Your task to perform on an android device: Go to location settings Image 0: 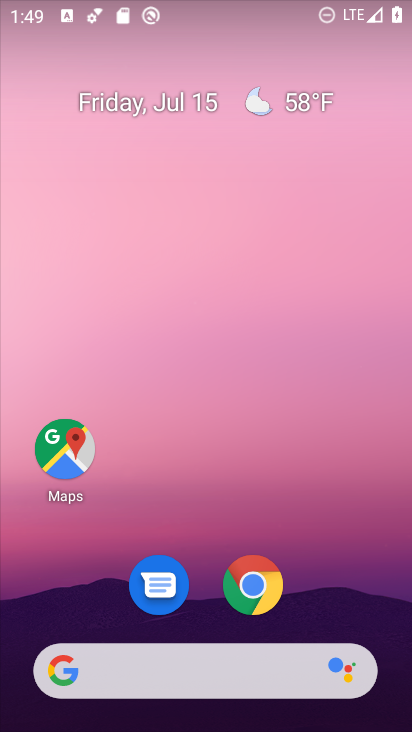
Step 0: drag from (237, 491) to (325, 26)
Your task to perform on an android device: Go to location settings Image 1: 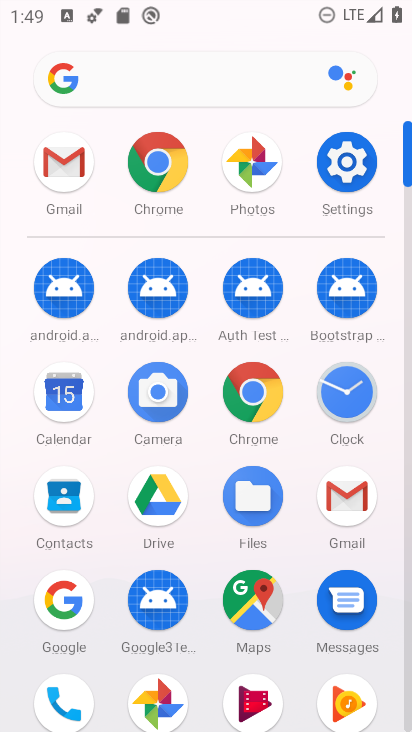
Step 1: click (344, 161)
Your task to perform on an android device: Go to location settings Image 2: 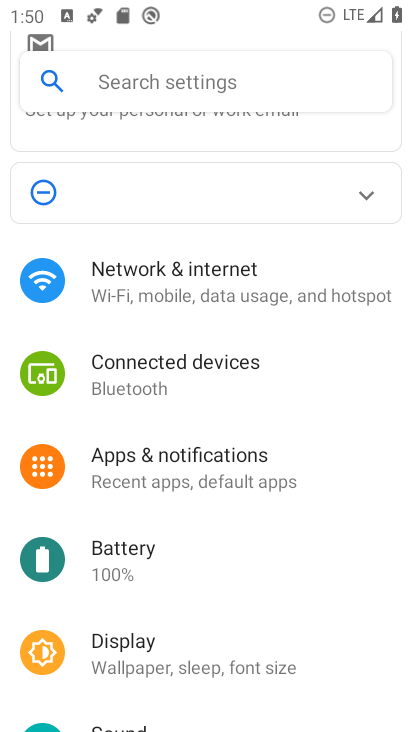
Step 2: drag from (206, 589) to (241, 127)
Your task to perform on an android device: Go to location settings Image 3: 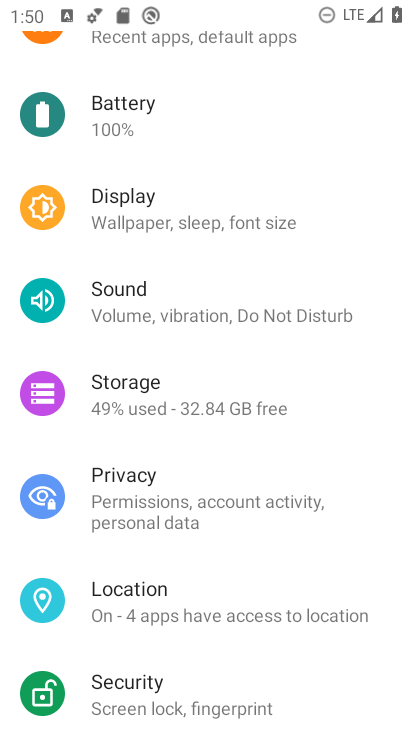
Step 3: click (185, 595)
Your task to perform on an android device: Go to location settings Image 4: 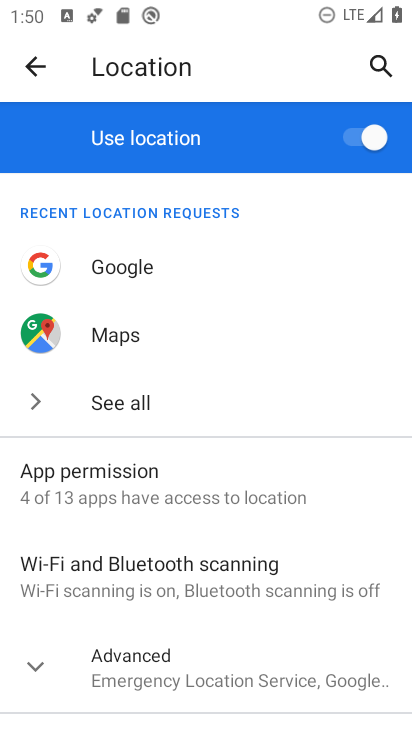
Step 4: task complete